Your task to perform on an android device: Open calendar and show me the fourth week of next month Image 0: 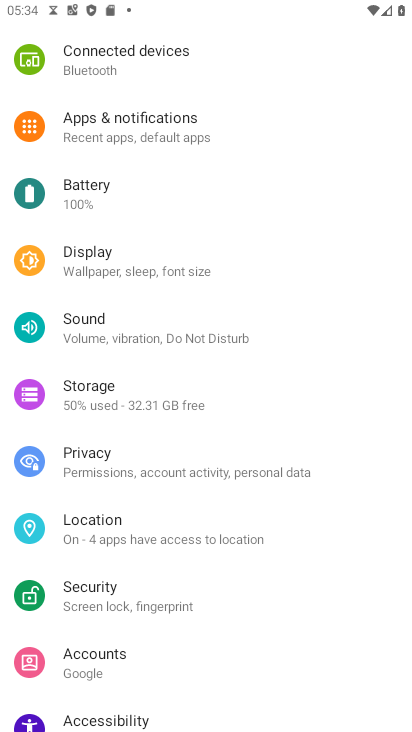
Step 0: press home button
Your task to perform on an android device: Open calendar and show me the fourth week of next month Image 1: 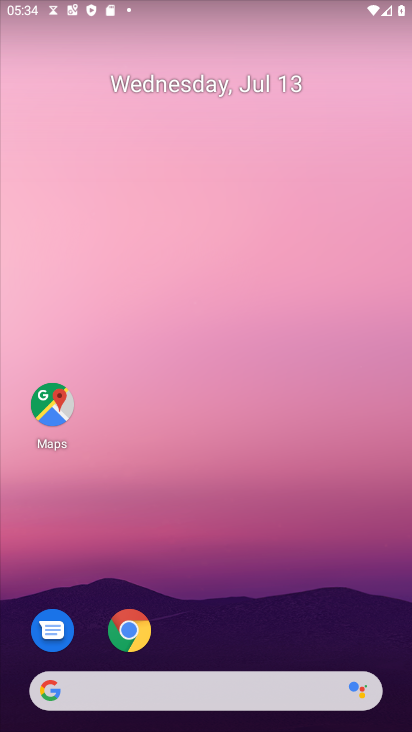
Step 1: drag from (171, 637) to (207, 177)
Your task to perform on an android device: Open calendar and show me the fourth week of next month Image 2: 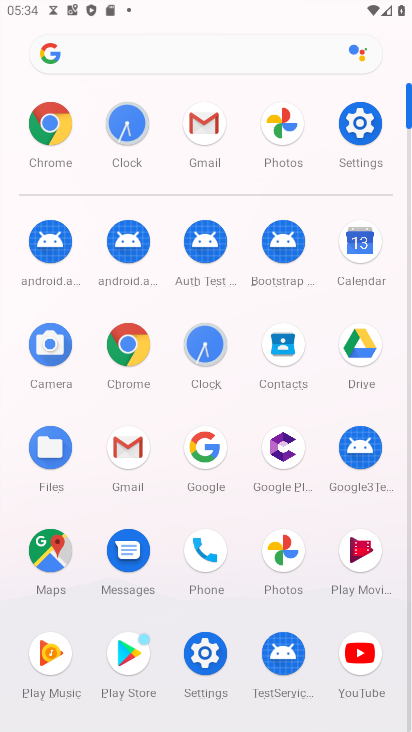
Step 2: click (355, 236)
Your task to perform on an android device: Open calendar and show me the fourth week of next month Image 3: 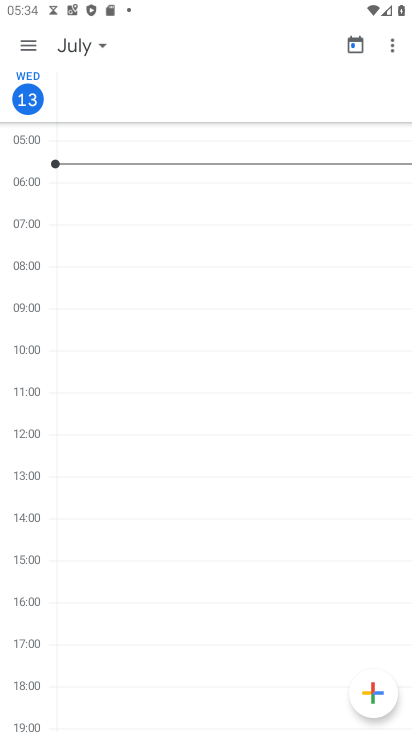
Step 3: click (106, 38)
Your task to perform on an android device: Open calendar and show me the fourth week of next month Image 4: 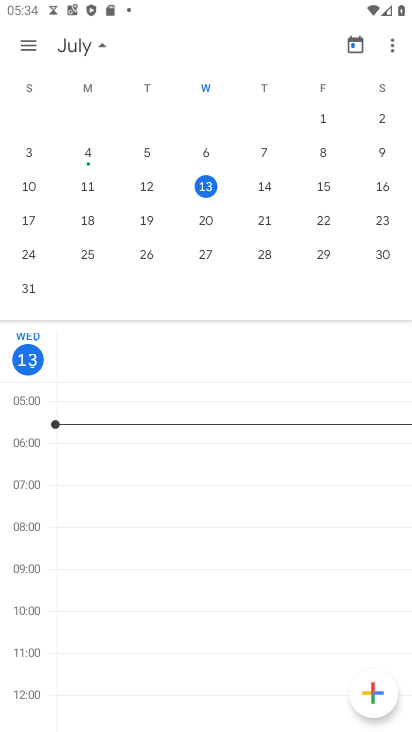
Step 4: drag from (265, 210) to (5, 195)
Your task to perform on an android device: Open calendar and show me the fourth week of next month Image 5: 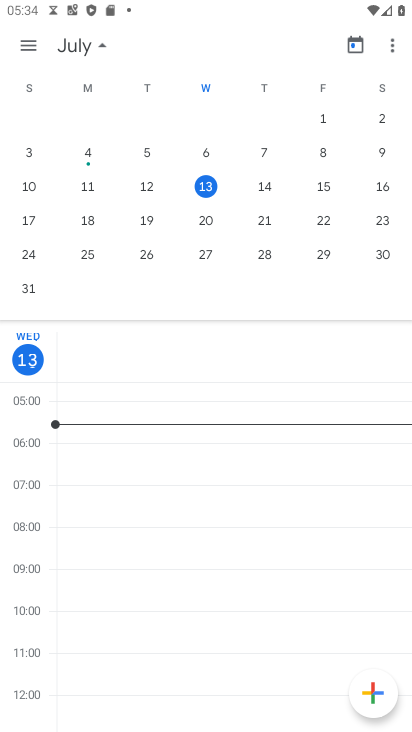
Step 5: drag from (197, 184) to (2, 220)
Your task to perform on an android device: Open calendar and show me the fourth week of next month Image 6: 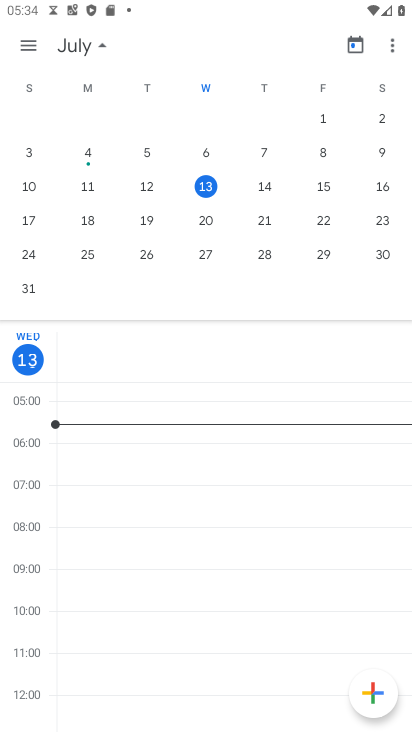
Step 6: drag from (354, 150) to (2, 199)
Your task to perform on an android device: Open calendar and show me the fourth week of next month Image 7: 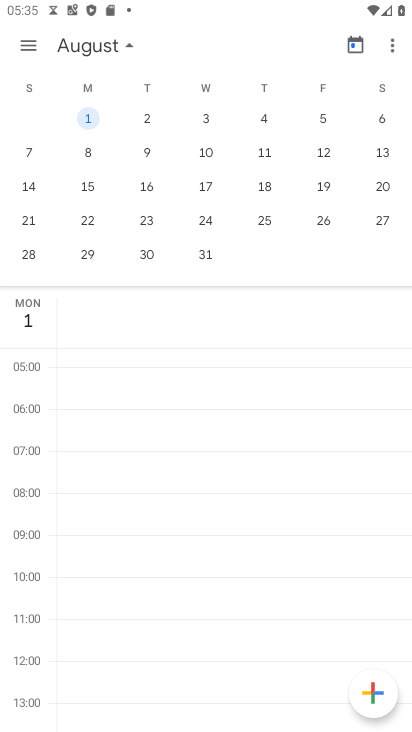
Step 7: click (203, 222)
Your task to perform on an android device: Open calendar and show me the fourth week of next month Image 8: 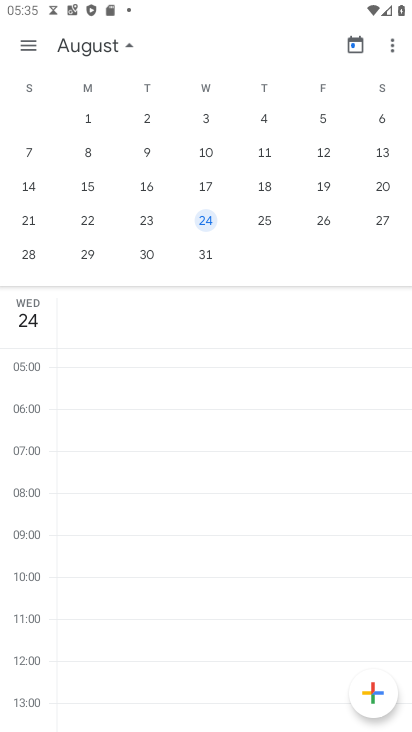
Step 8: click (35, 42)
Your task to perform on an android device: Open calendar and show me the fourth week of next month Image 9: 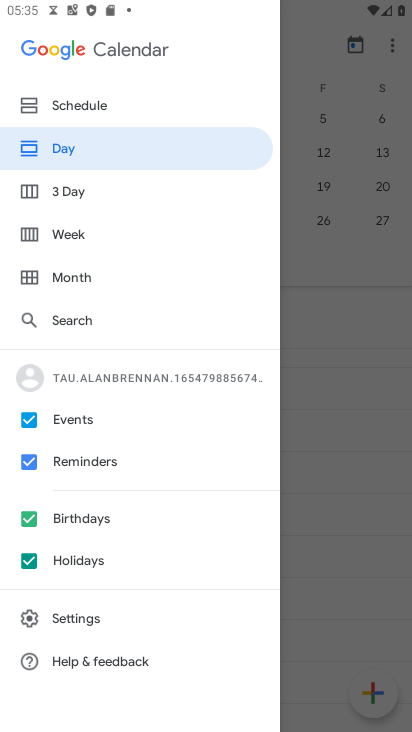
Step 9: click (88, 233)
Your task to perform on an android device: Open calendar and show me the fourth week of next month Image 10: 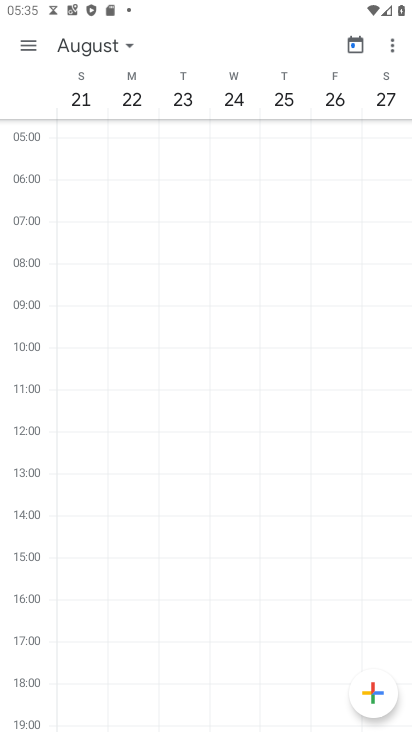
Step 10: task complete